Your task to perform on an android device: Open Google Maps Image 0: 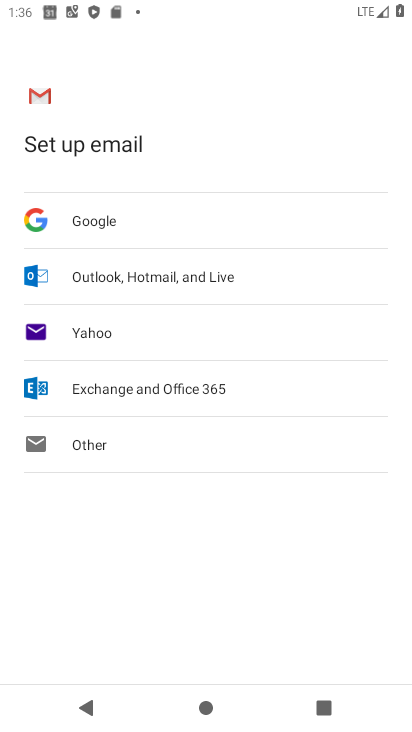
Step 0: press home button
Your task to perform on an android device: Open Google Maps Image 1: 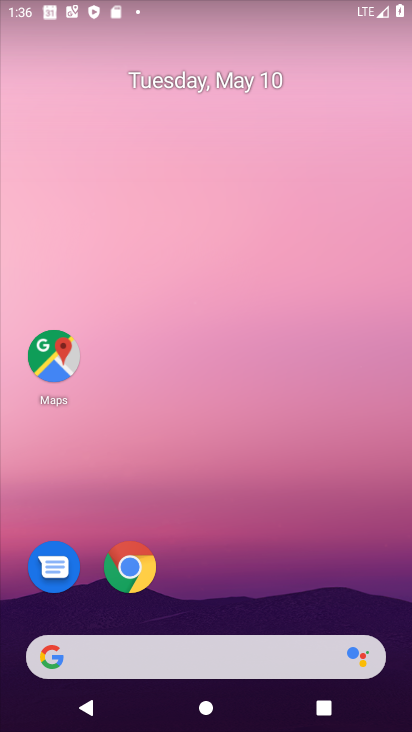
Step 1: drag from (380, 617) to (54, 46)
Your task to perform on an android device: Open Google Maps Image 2: 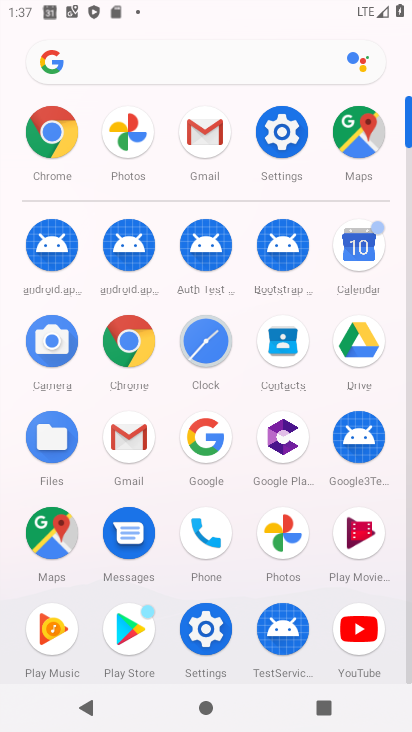
Step 2: click (61, 538)
Your task to perform on an android device: Open Google Maps Image 3: 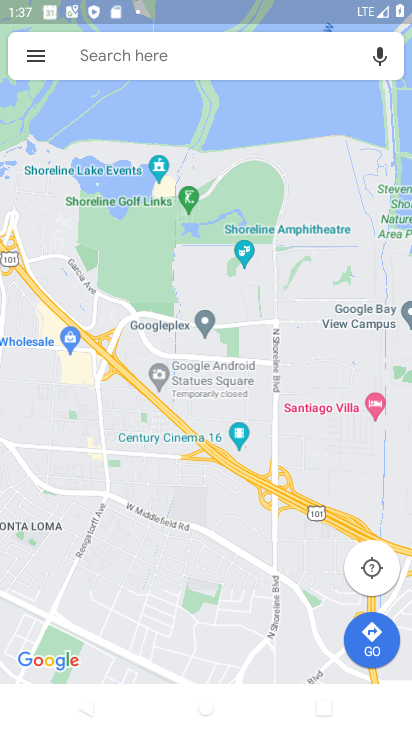
Step 3: task complete